Your task to perform on an android device: allow cookies in the chrome app Image 0: 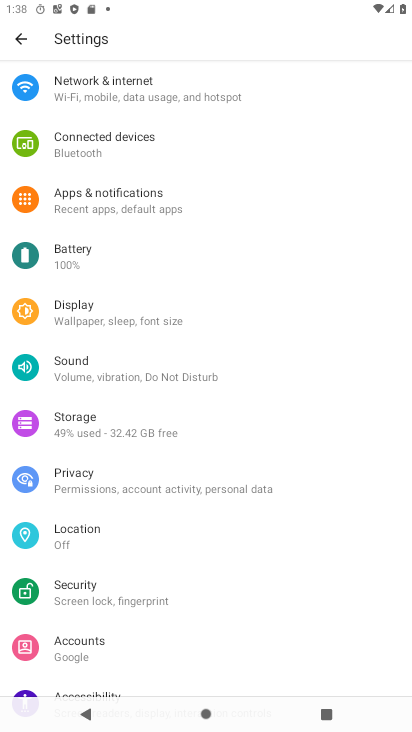
Step 0: press home button
Your task to perform on an android device: allow cookies in the chrome app Image 1: 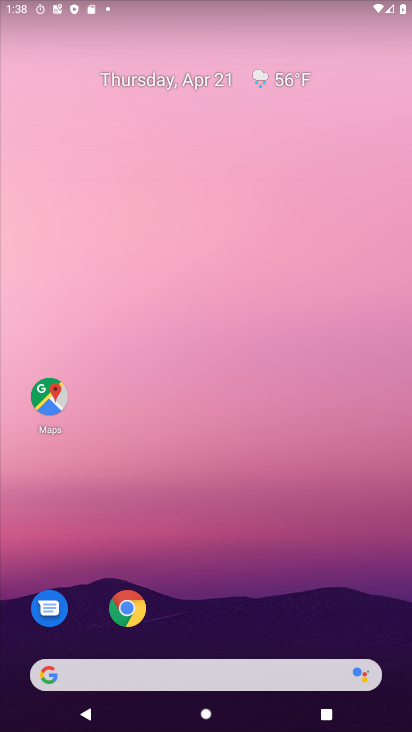
Step 1: click (125, 606)
Your task to perform on an android device: allow cookies in the chrome app Image 2: 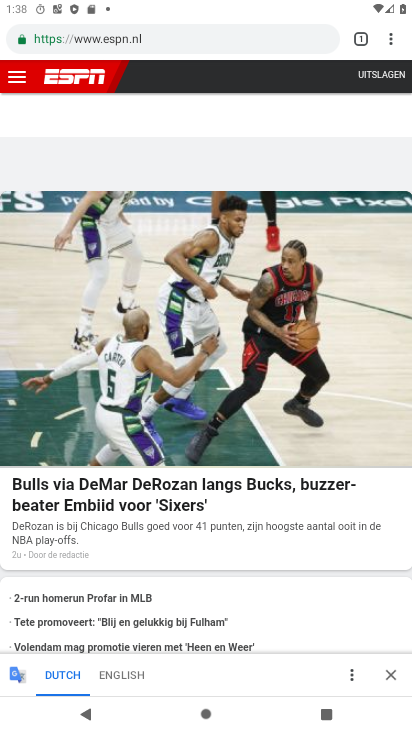
Step 2: click (392, 40)
Your task to perform on an android device: allow cookies in the chrome app Image 3: 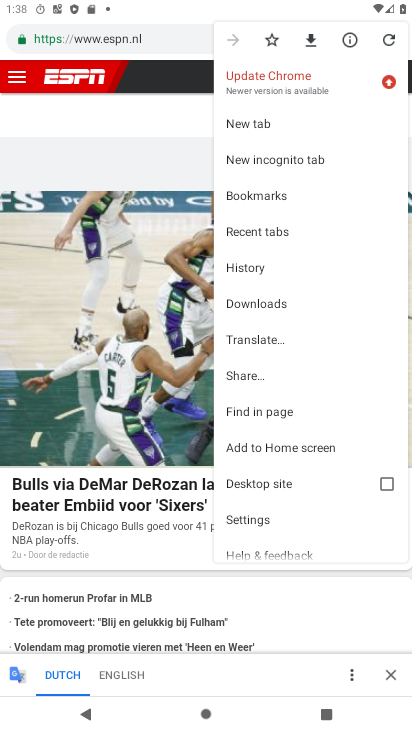
Step 3: click (270, 516)
Your task to perform on an android device: allow cookies in the chrome app Image 4: 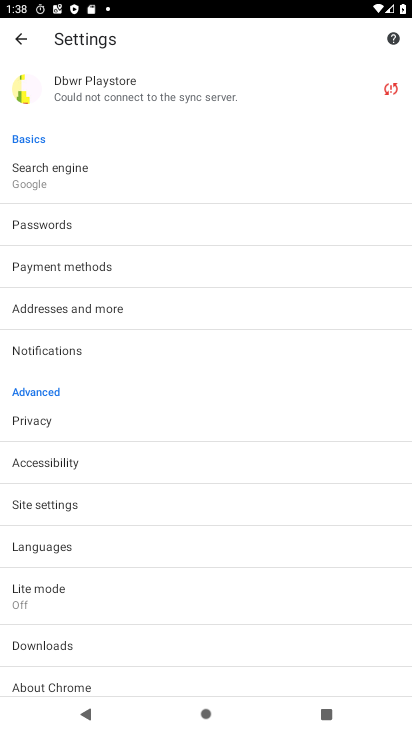
Step 4: click (68, 509)
Your task to perform on an android device: allow cookies in the chrome app Image 5: 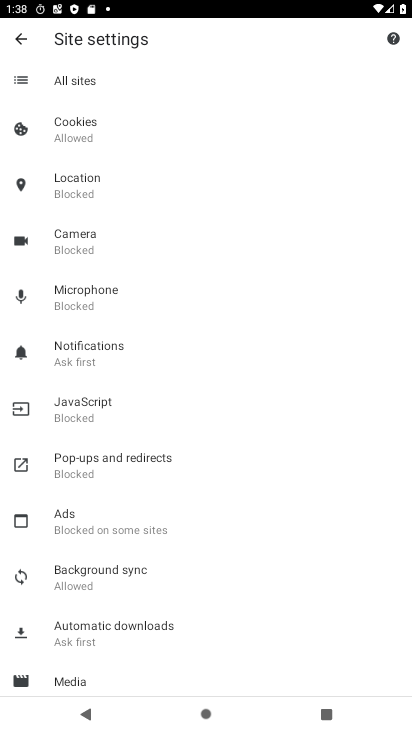
Step 5: click (87, 129)
Your task to perform on an android device: allow cookies in the chrome app Image 6: 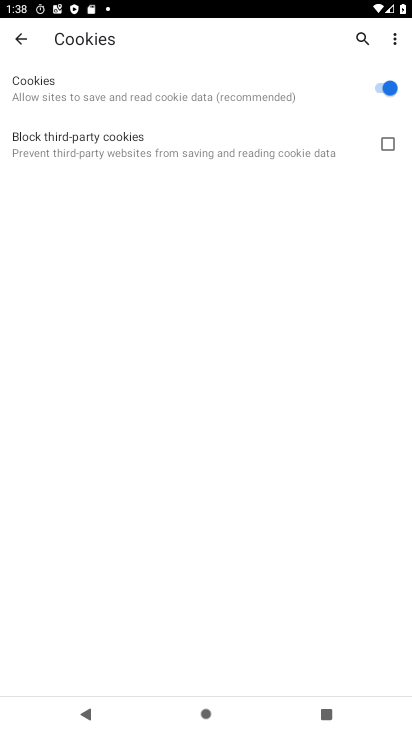
Step 6: click (381, 86)
Your task to perform on an android device: allow cookies in the chrome app Image 7: 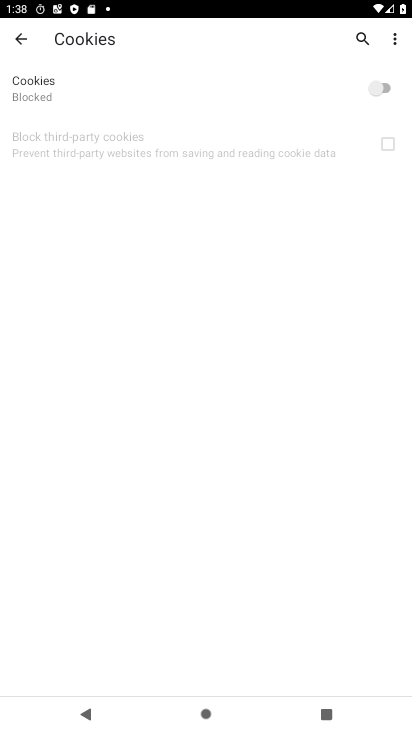
Step 7: click (389, 86)
Your task to perform on an android device: allow cookies in the chrome app Image 8: 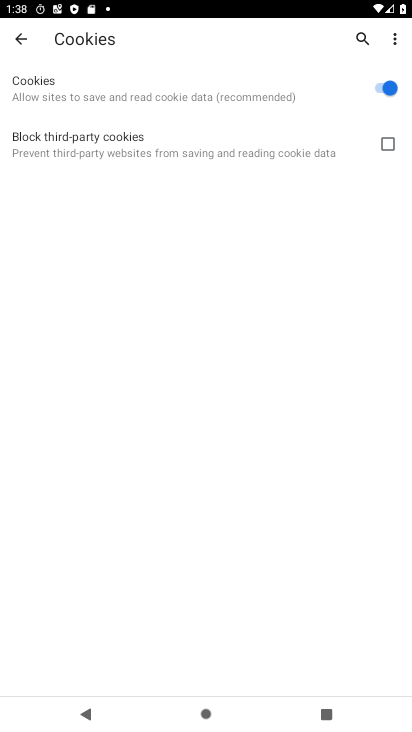
Step 8: task complete